Your task to perform on an android device: clear all cookies in the chrome app Image 0: 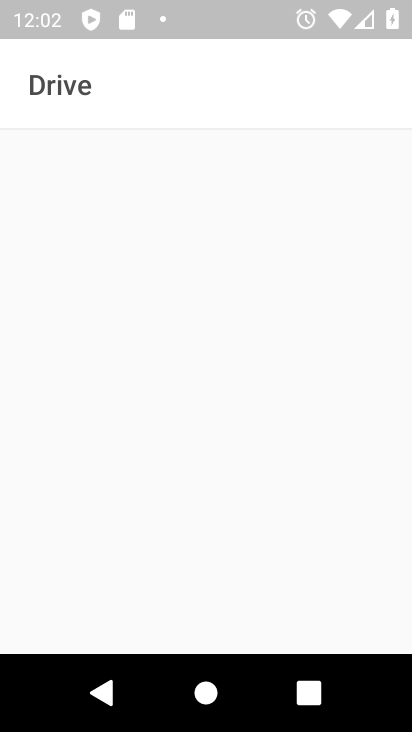
Step 0: press home button
Your task to perform on an android device: clear all cookies in the chrome app Image 1: 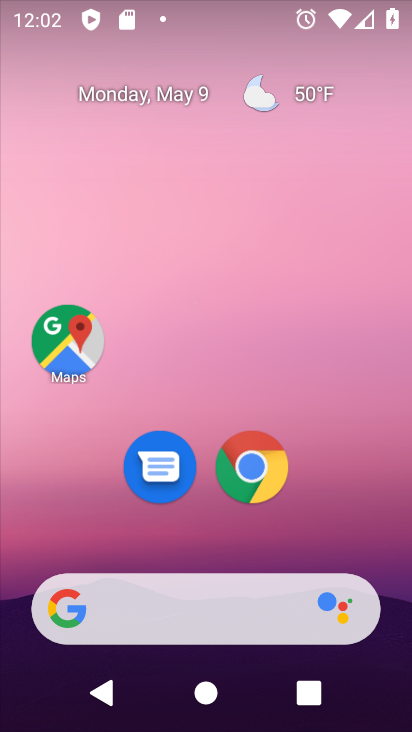
Step 1: click (240, 461)
Your task to perform on an android device: clear all cookies in the chrome app Image 2: 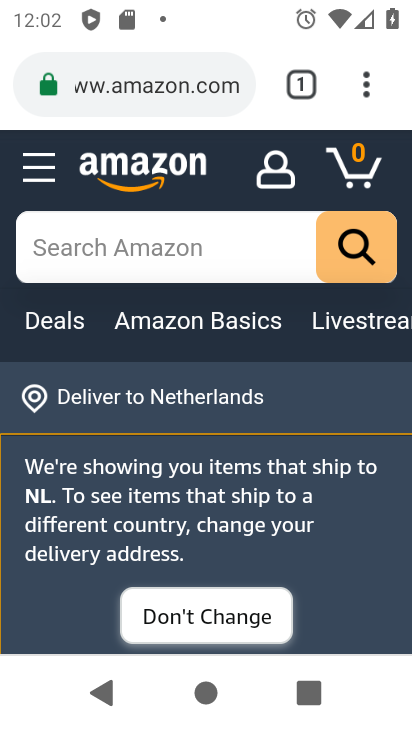
Step 2: click (361, 78)
Your task to perform on an android device: clear all cookies in the chrome app Image 3: 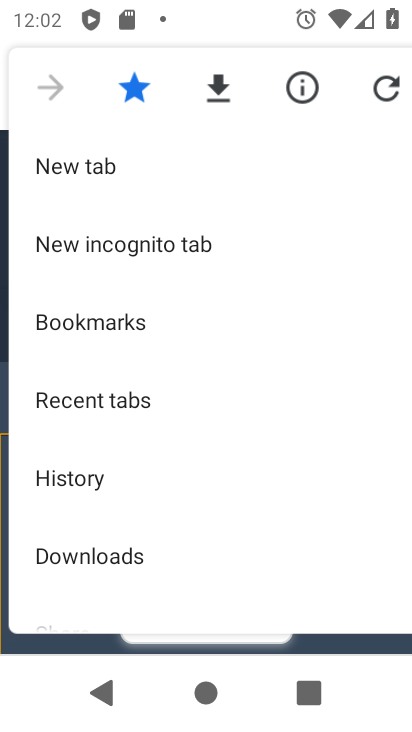
Step 3: drag from (237, 545) to (240, 138)
Your task to perform on an android device: clear all cookies in the chrome app Image 4: 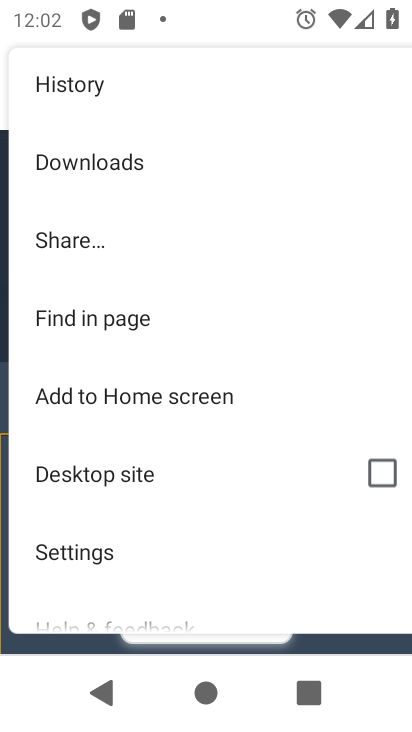
Step 4: drag from (184, 171) to (220, 619)
Your task to perform on an android device: clear all cookies in the chrome app Image 5: 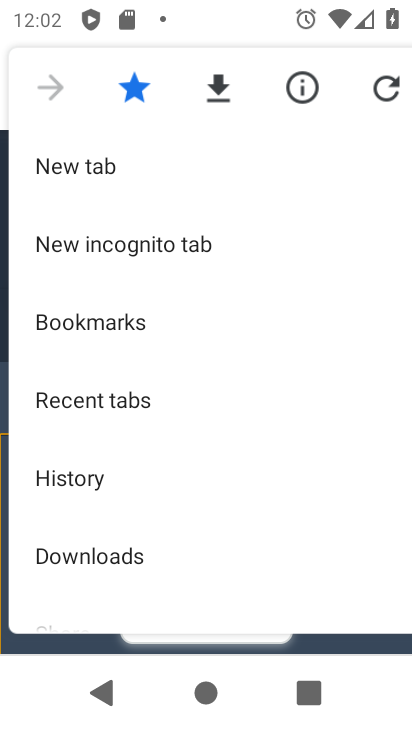
Step 5: click (110, 478)
Your task to perform on an android device: clear all cookies in the chrome app Image 6: 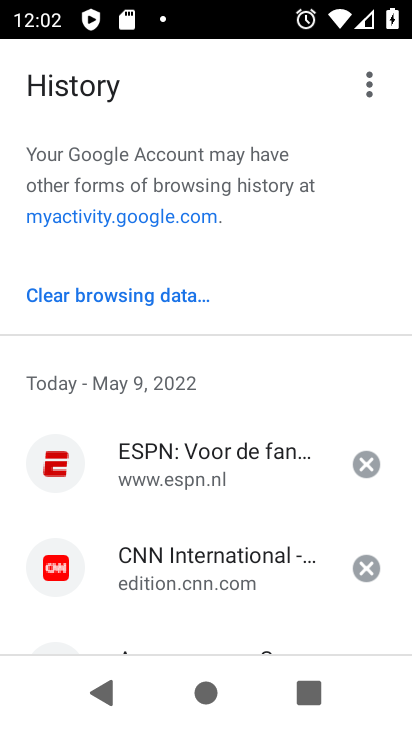
Step 6: click (92, 286)
Your task to perform on an android device: clear all cookies in the chrome app Image 7: 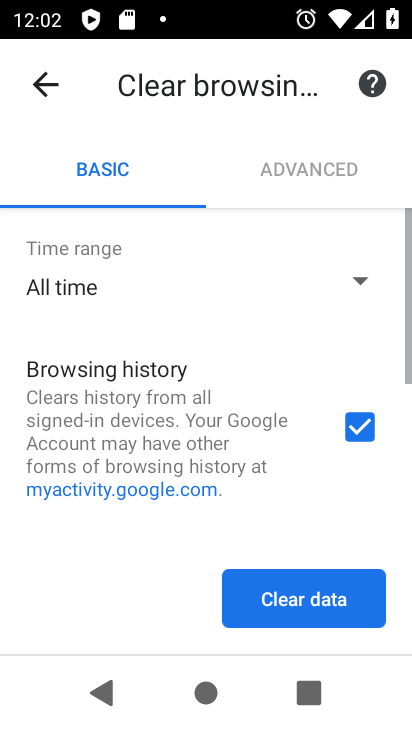
Step 7: drag from (265, 499) to (287, 210)
Your task to perform on an android device: clear all cookies in the chrome app Image 8: 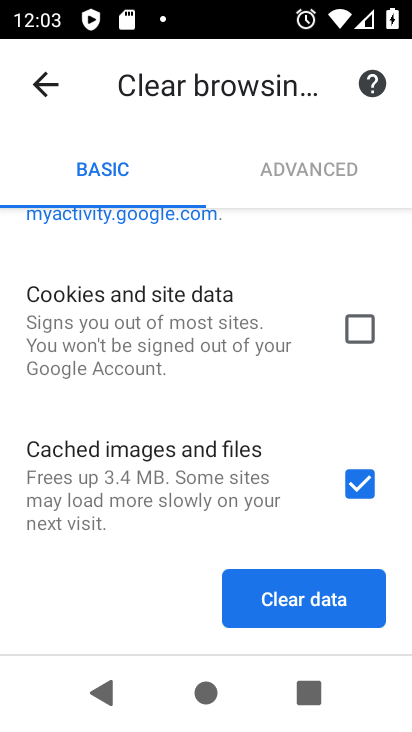
Step 8: click (355, 322)
Your task to perform on an android device: clear all cookies in the chrome app Image 9: 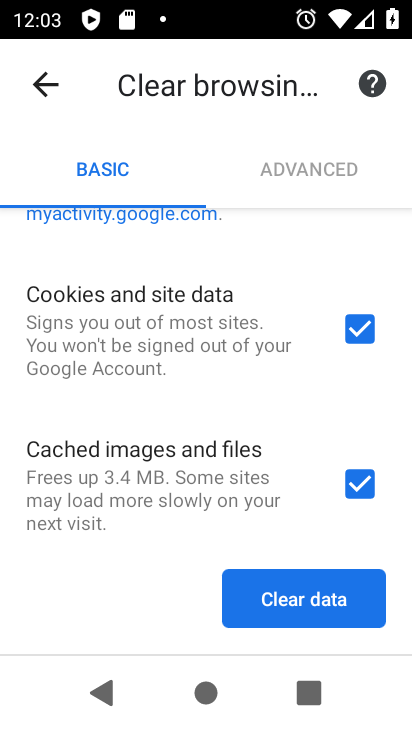
Step 9: click (299, 606)
Your task to perform on an android device: clear all cookies in the chrome app Image 10: 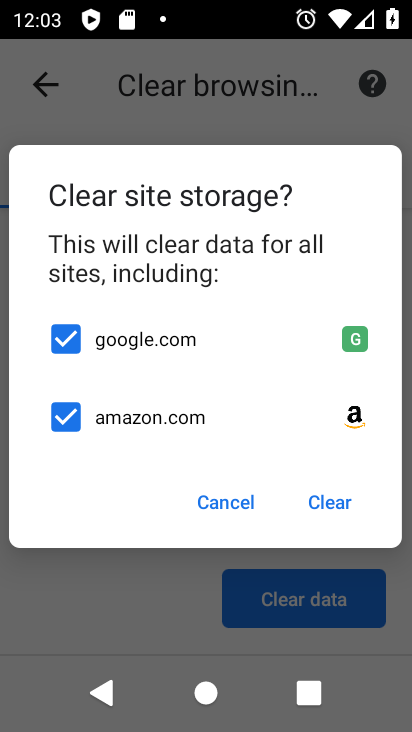
Step 10: click (328, 497)
Your task to perform on an android device: clear all cookies in the chrome app Image 11: 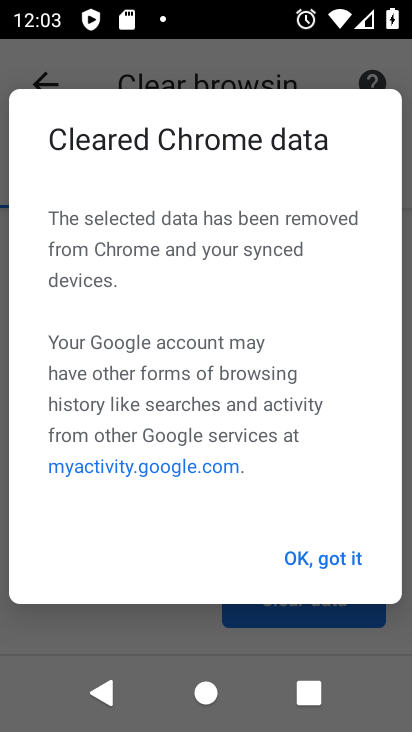
Step 11: click (327, 555)
Your task to perform on an android device: clear all cookies in the chrome app Image 12: 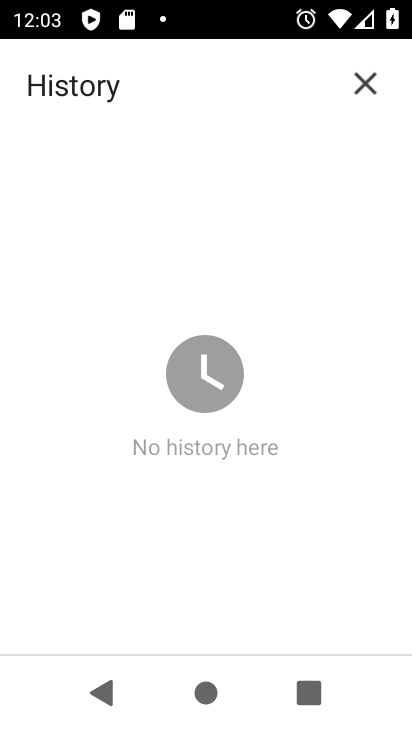
Step 12: task complete